Your task to perform on an android device: turn on javascript in the chrome app Image 0: 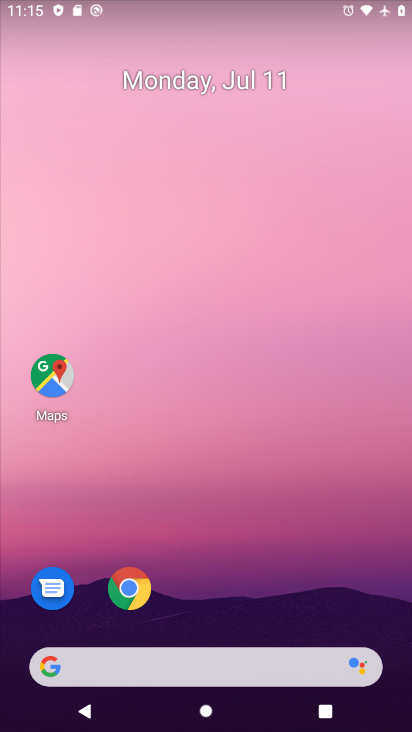
Step 0: press home button
Your task to perform on an android device: turn on javascript in the chrome app Image 1: 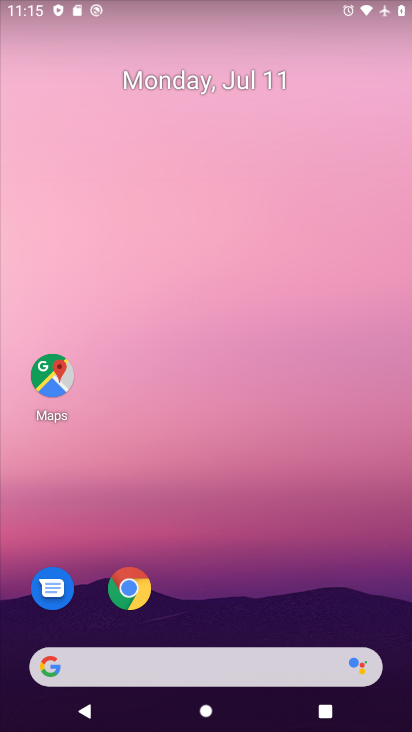
Step 1: click (119, 579)
Your task to perform on an android device: turn on javascript in the chrome app Image 2: 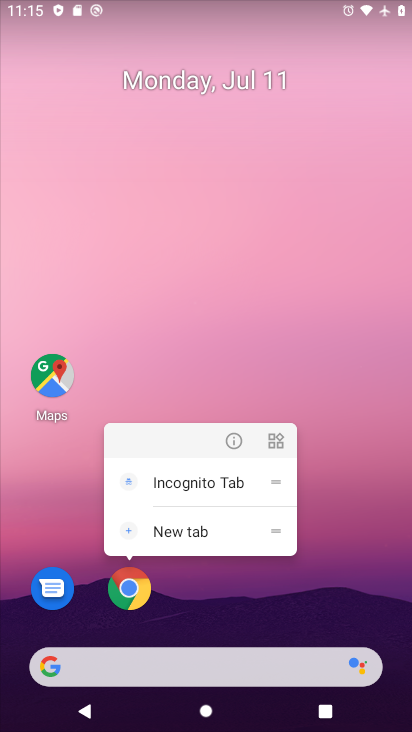
Step 2: click (123, 593)
Your task to perform on an android device: turn on javascript in the chrome app Image 3: 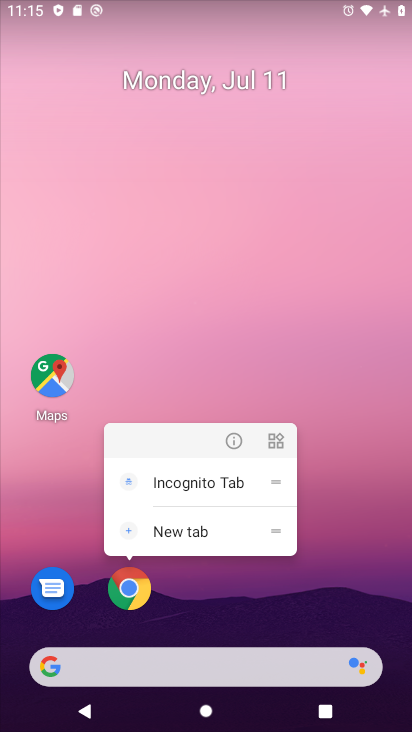
Step 3: click (125, 592)
Your task to perform on an android device: turn on javascript in the chrome app Image 4: 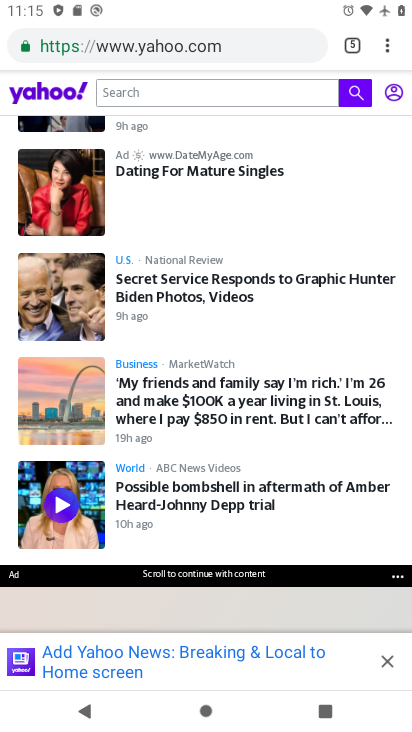
Step 4: drag from (388, 49) to (259, 552)
Your task to perform on an android device: turn on javascript in the chrome app Image 5: 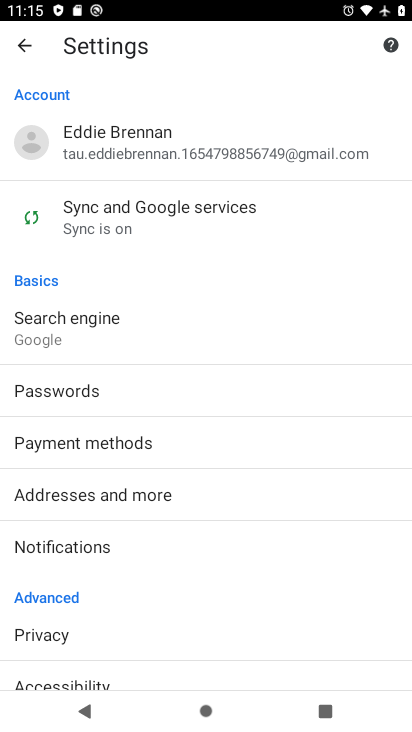
Step 5: drag from (111, 631) to (160, 315)
Your task to perform on an android device: turn on javascript in the chrome app Image 6: 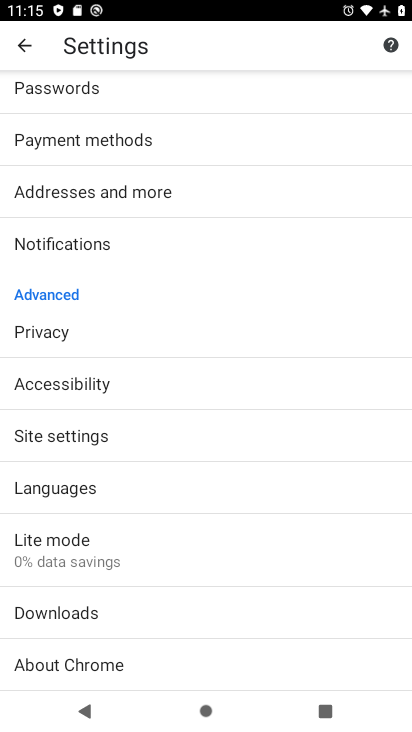
Step 6: click (77, 441)
Your task to perform on an android device: turn on javascript in the chrome app Image 7: 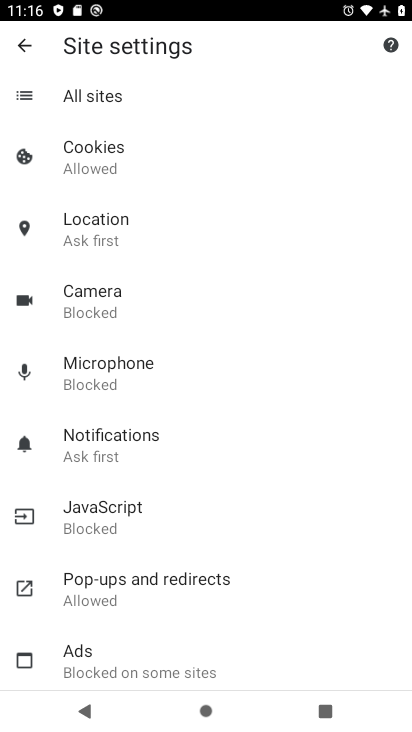
Step 7: click (100, 525)
Your task to perform on an android device: turn on javascript in the chrome app Image 8: 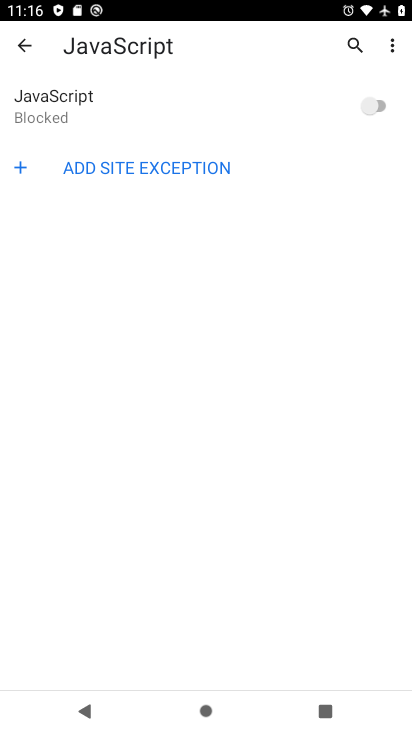
Step 8: click (379, 104)
Your task to perform on an android device: turn on javascript in the chrome app Image 9: 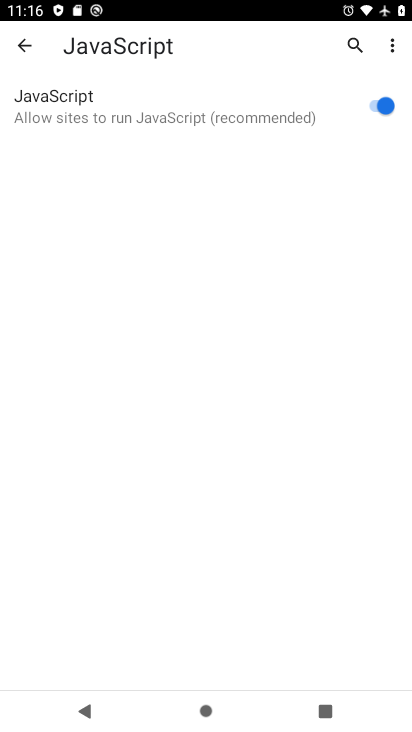
Step 9: task complete